Your task to perform on an android device: manage bookmarks in the chrome app Image 0: 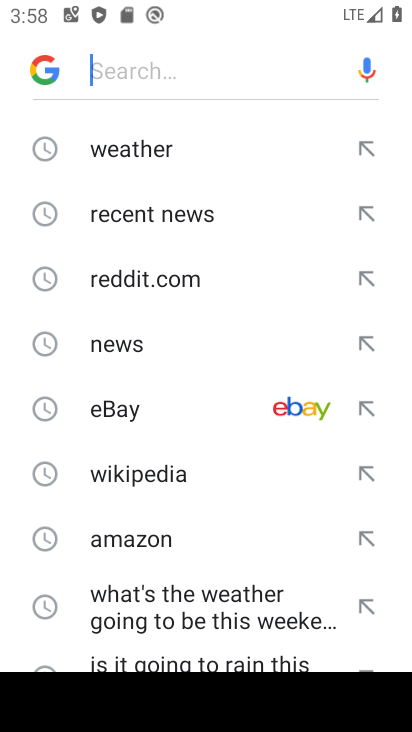
Step 0: press home button
Your task to perform on an android device: manage bookmarks in the chrome app Image 1: 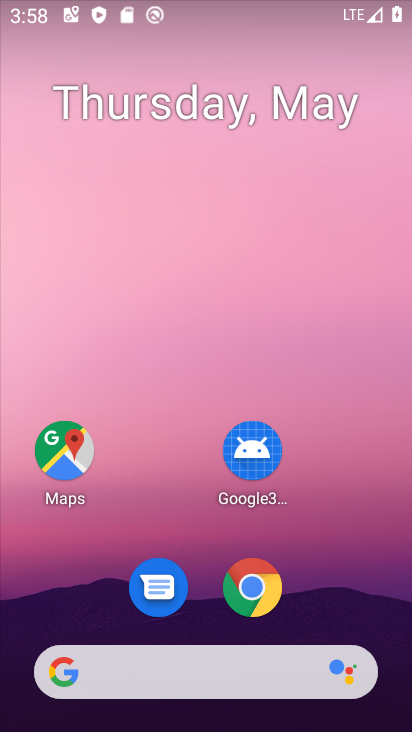
Step 1: drag from (317, 571) to (119, 59)
Your task to perform on an android device: manage bookmarks in the chrome app Image 2: 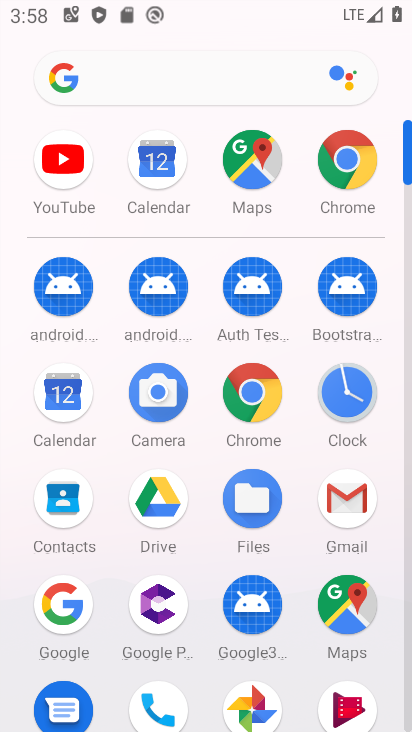
Step 2: click (273, 408)
Your task to perform on an android device: manage bookmarks in the chrome app Image 3: 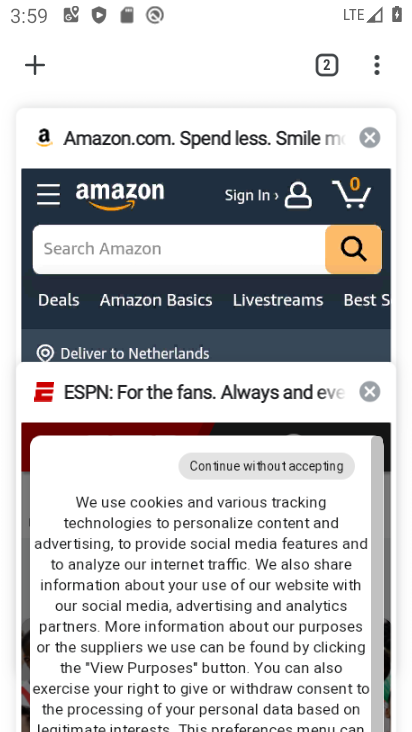
Step 3: click (390, 71)
Your task to perform on an android device: manage bookmarks in the chrome app Image 4: 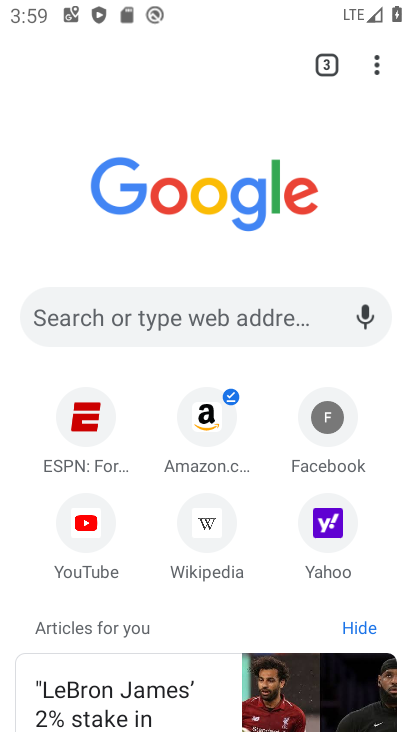
Step 4: click (382, 78)
Your task to perform on an android device: manage bookmarks in the chrome app Image 5: 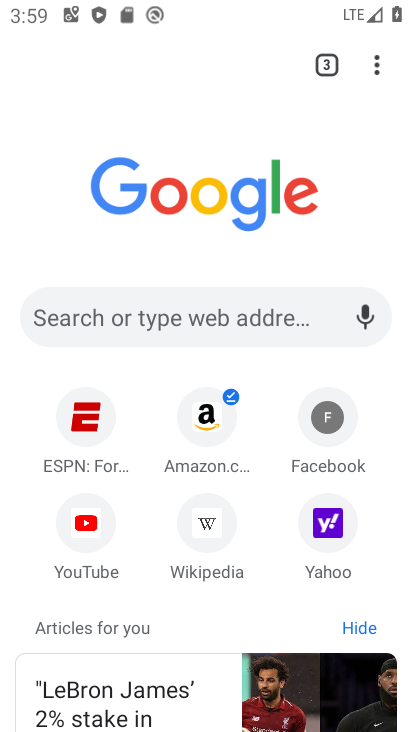
Step 5: click (383, 53)
Your task to perform on an android device: manage bookmarks in the chrome app Image 6: 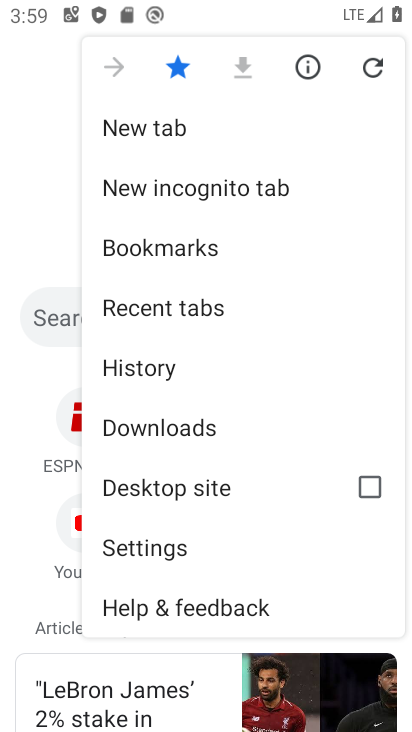
Step 6: click (205, 265)
Your task to perform on an android device: manage bookmarks in the chrome app Image 7: 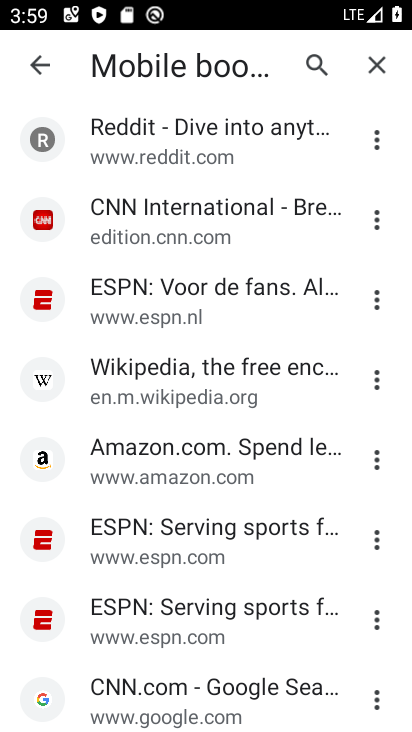
Step 7: task complete